Your task to perform on an android device: allow cookies in the chrome app Image 0: 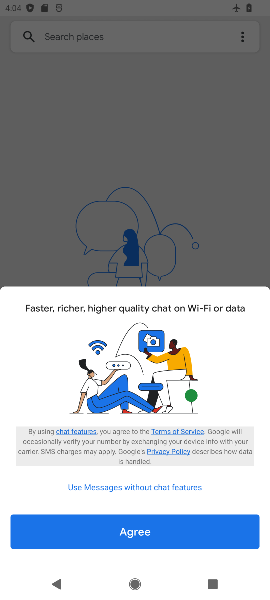
Step 0: press home button
Your task to perform on an android device: allow cookies in the chrome app Image 1: 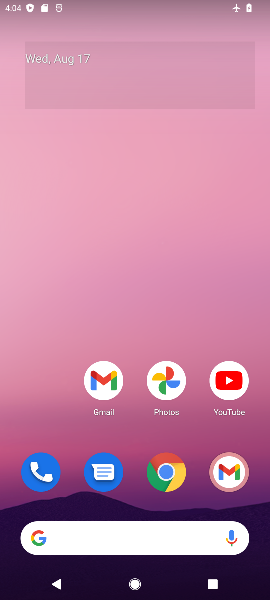
Step 1: click (164, 476)
Your task to perform on an android device: allow cookies in the chrome app Image 2: 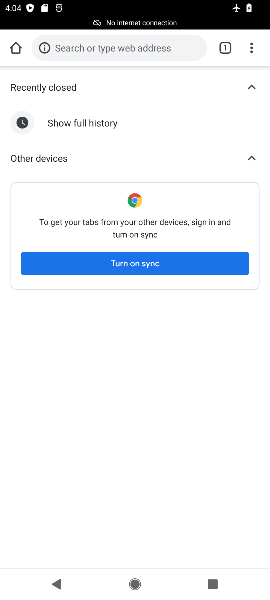
Step 2: click (252, 46)
Your task to perform on an android device: allow cookies in the chrome app Image 3: 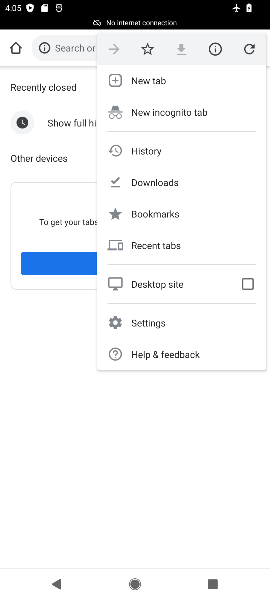
Step 3: click (149, 321)
Your task to perform on an android device: allow cookies in the chrome app Image 4: 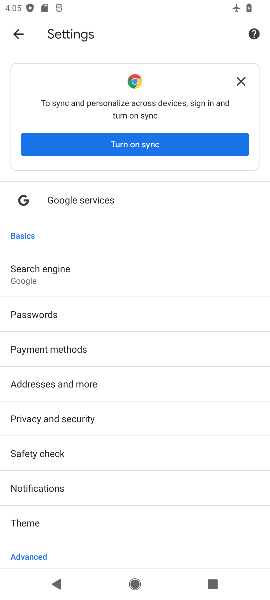
Step 4: drag from (80, 503) to (78, 290)
Your task to perform on an android device: allow cookies in the chrome app Image 5: 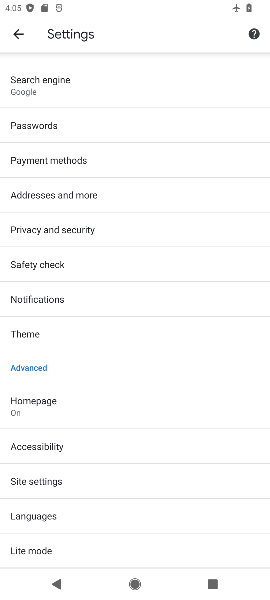
Step 5: click (90, 479)
Your task to perform on an android device: allow cookies in the chrome app Image 6: 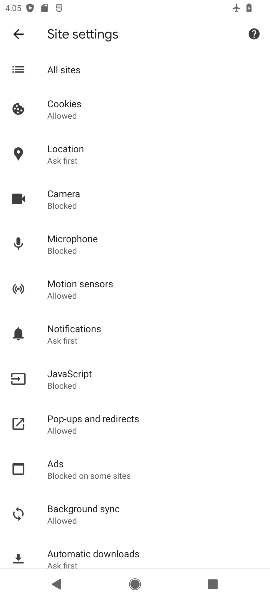
Step 6: click (87, 106)
Your task to perform on an android device: allow cookies in the chrome app Image 7: 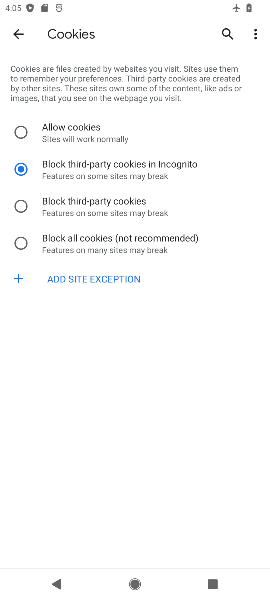
Step 7: click (77, 131)
Your task to perform on an android device: allow cookies in the chrome app Image 8: 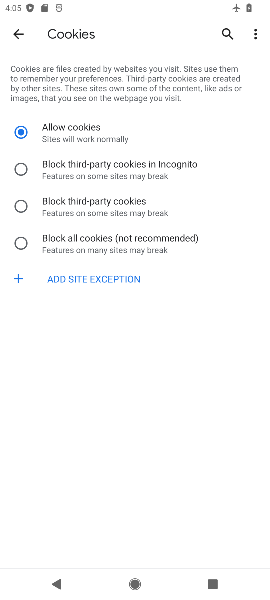
Step 8: task complete